Your task to perform on an android device: Open calendar and show me the fourth week of next month Image 0: 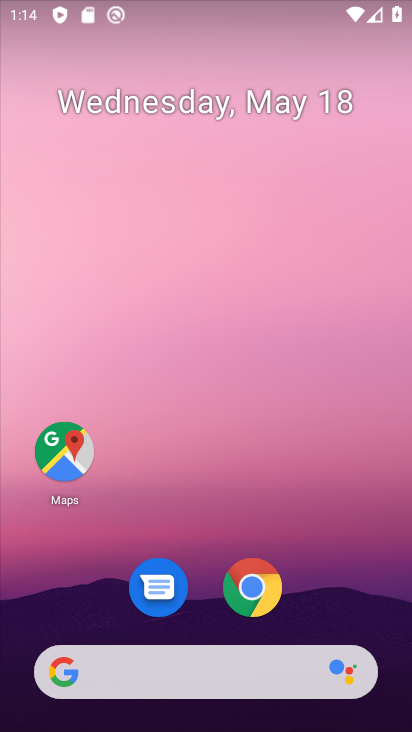
Step 0: click (381, 517)
Your task to perform on an android device: Open calendar and show me the fourth week of next month Image 1: 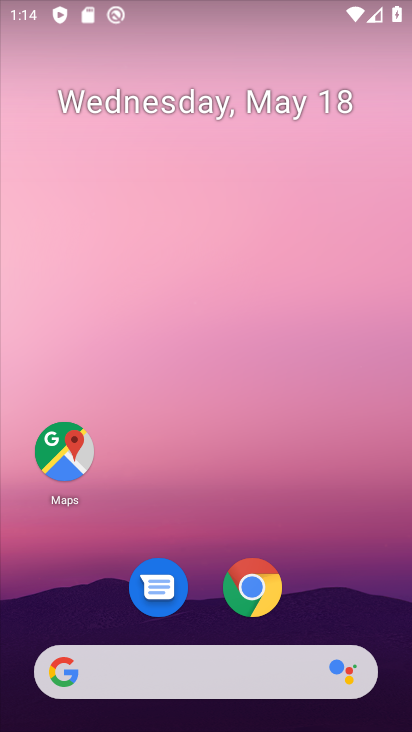
Step 1: drag from (372, 444) to (370, 289)
Your task to perform on an android device: Open calendar and show me the fourth week of next month Image 2: 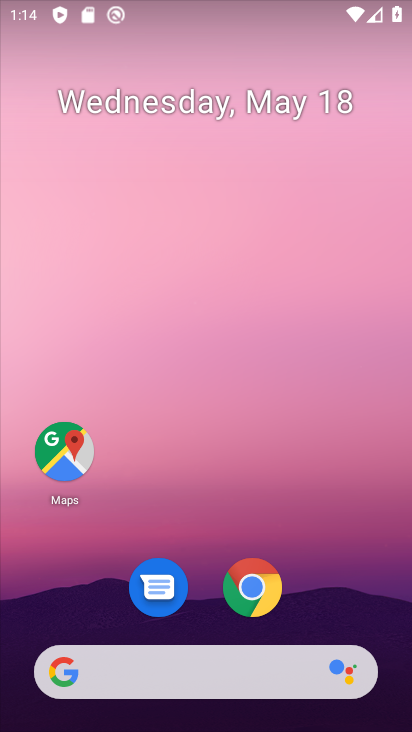
Step 2: drag from (363, 609) to (365, 438)
Your task to perform on an android device: Open calendar and show me the fourth week of next month Image 3: 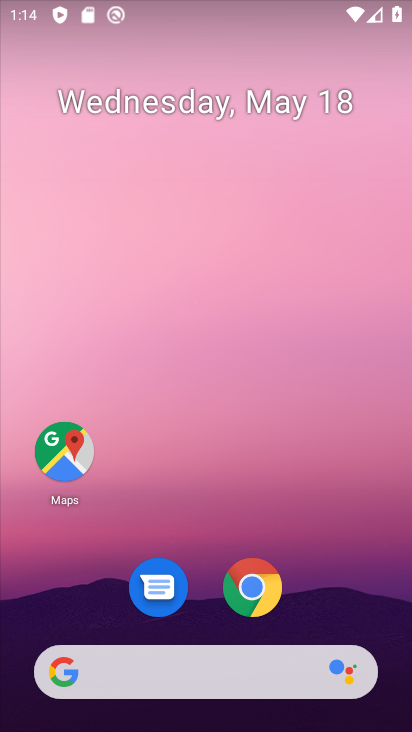
Step 3: drag from (395, 551) to (385, 319)
Your task to perform on an android device: Open calendar and show me the fourth week of next month Image 4: 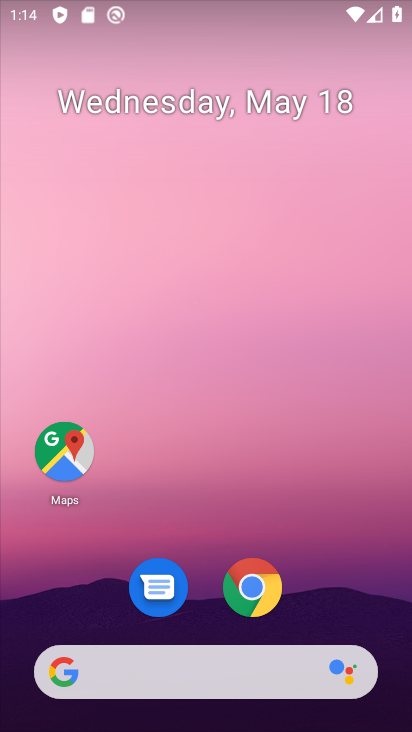
Step 4: drag from (375, 669) to (347, 353)
Your task to perform on an android device: Open calendar and show me the fourth week of next month Image 5: 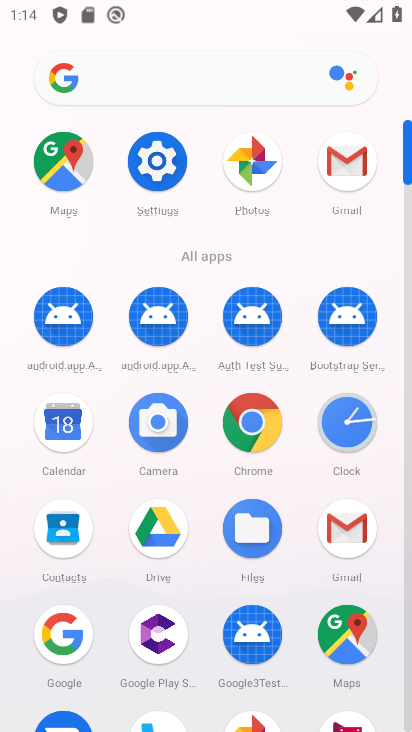
Step 5: click (57, 425)
Your task to perform on an android device: Open calendar and show me the fourth week of next month Image 6: 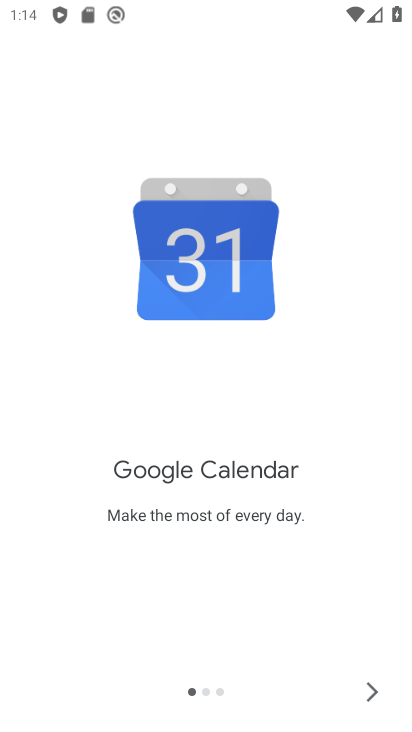
Step 6: click (375, 697)
Your task to perform on an android device: Open calendar and show me the fourth week of next month Image 7: 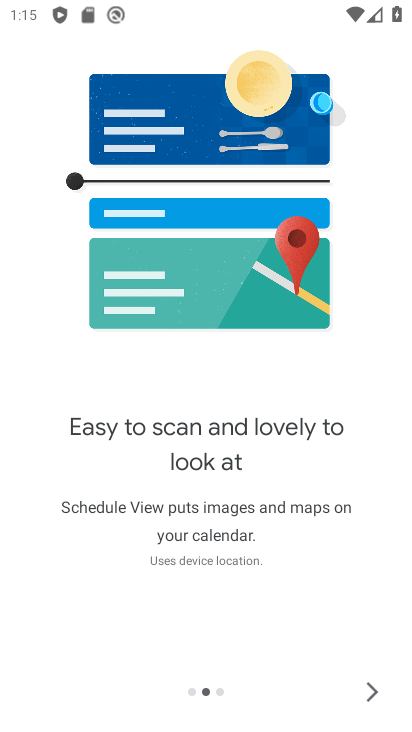
Step 7: click (364, 694)
Your task to perform on an android device: Open calendar and show me the fourth week of next month Image 8: 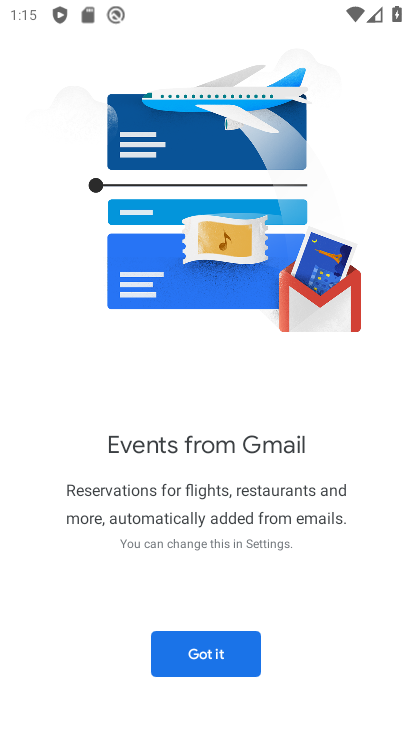
Step 8: click (238, 656)
Your task to perform on an android device: Open calendar and show me the fourth week of next month Image 9: 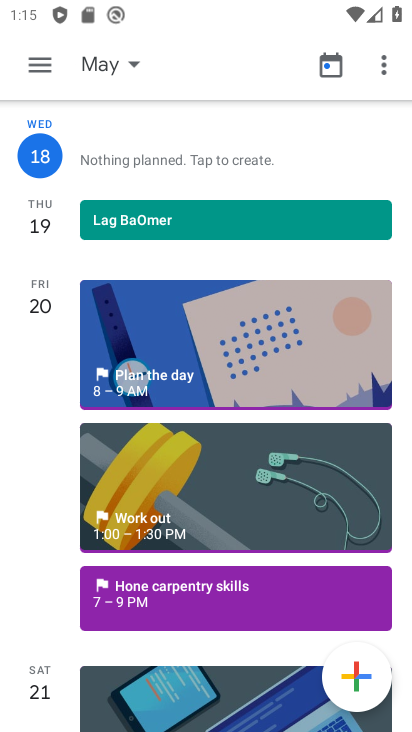
Step 9: click (130, 61)
Your task to perform on an android device: Open calendar and show me the fourth week of next month Image 10: 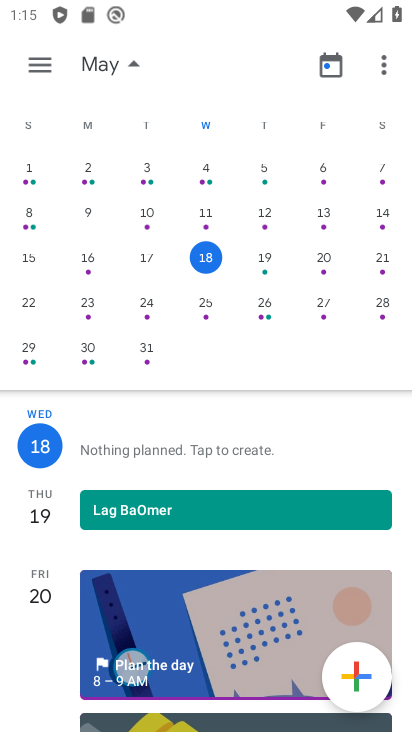
Step 10: click (399, 239)
Your task to perform on an android device: Open calendar and show me the fourth week of next month Image 11: 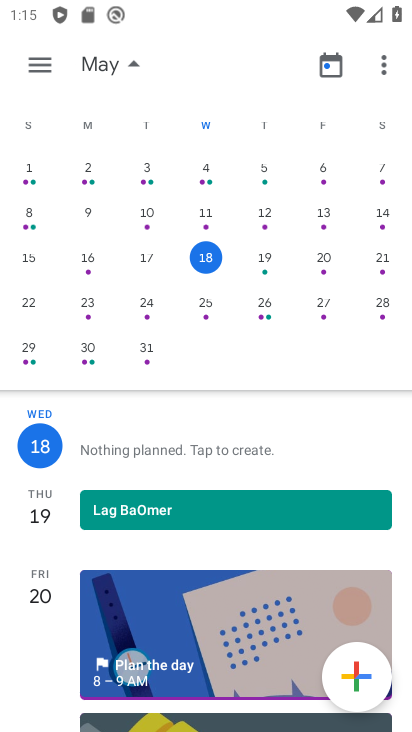
Step 11: drag from (393, 228) to (173, 219)
Your task to perform on an android device: Open calendar and show me the fourth week of next month Image 12: 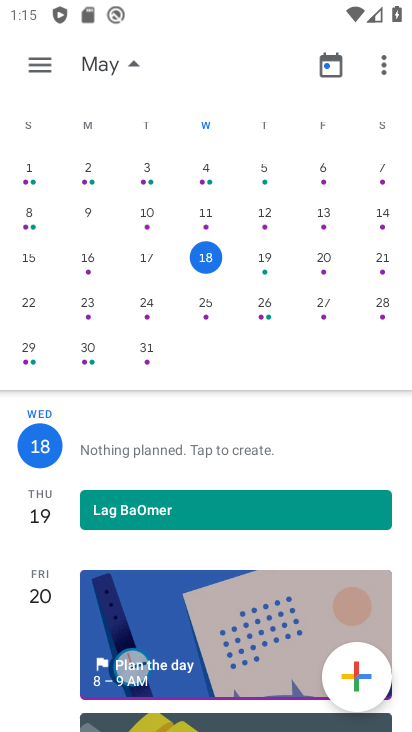
Step 12: drag from (317, 173) to (69, 132)
Your task to perform on an android device: Open calendar and show me the fourth week of next month Image 13: 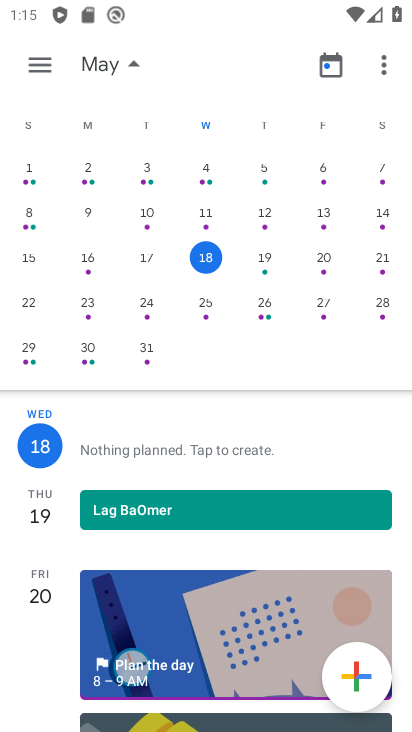
Step 13: drag from (396, 191) to (0, 126)
Your task to perform on an android device: Open calendar and show me the fourth week of next month Image 14: 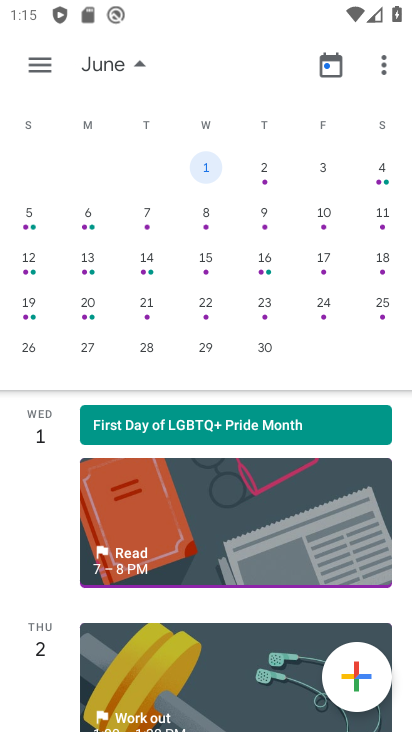
Step 14: click (267, 306)
Your task to perform on an android device: Open calendar and show me the fourth week of next month Image 15: 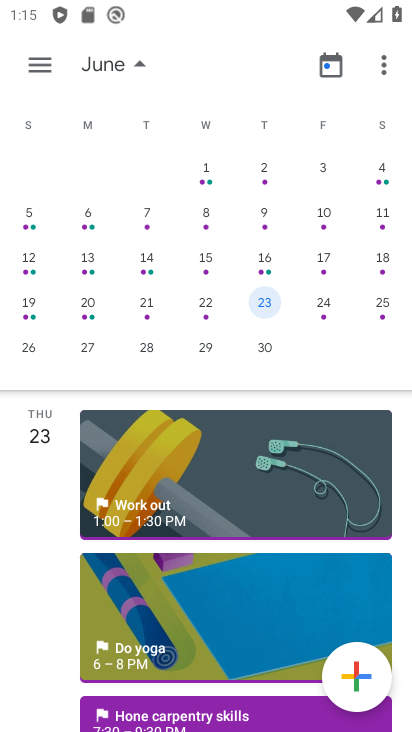
Step 15: task complete